Your task to perform on an android device: change alarm snooze length Image 0: 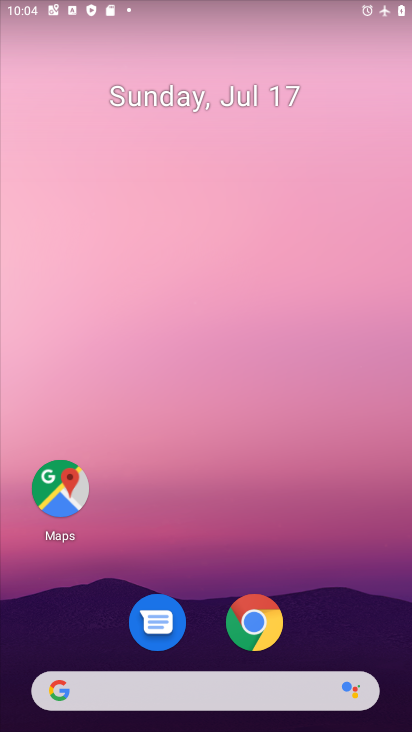
Step 0: drag from (177, 712) to (248, 16)
Your task to perform on an android device: change alarm snooze length Image 1: 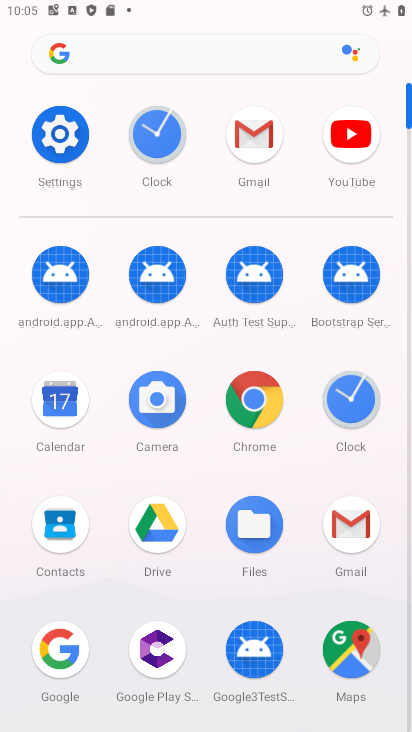
Step 1: click (164, 138)
Your task to perform on an android device: change alarm snooze length Image 2: 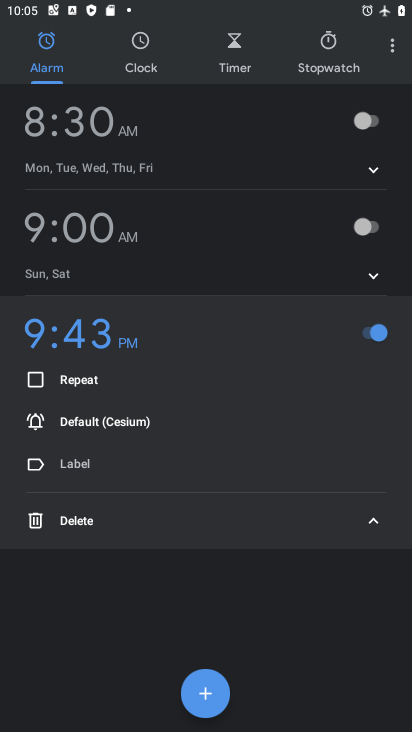
Step 2: click (393, 42)
Your task to perform on an android device: change alarm snooze length Image 3: 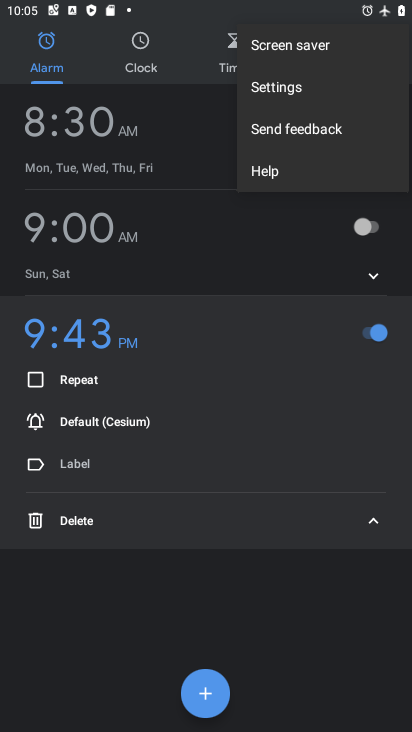
Step 3: click (285, 85)
Your task to perform on an android device: change alarm snooze length Image 4: 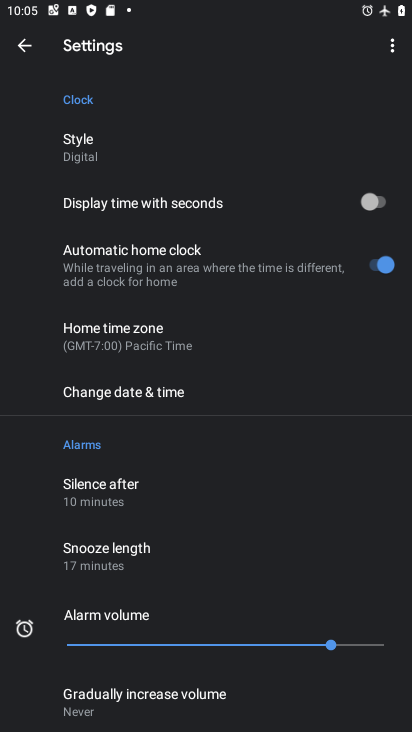
Step 4: click (132, 563)
Your task to perform on an android device: change alarm snooze length Image 5: 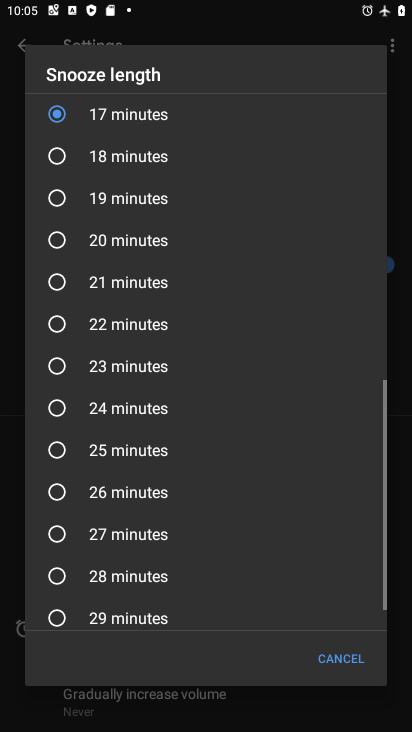
Step 5: click (135, 544)
Your task to perform on an android device: change alarm snooze length Image 6: 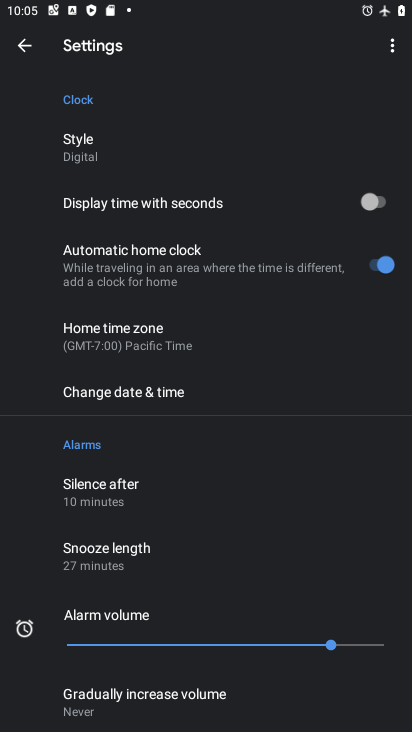
Step 6: task complete